Your task to perform on an android device: find which apps use the phone's location Image 0: 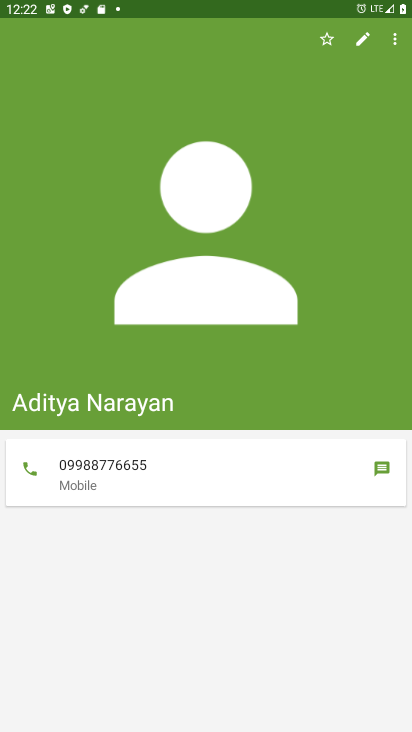
Step 0: press home button
Your task to perform on an android device: find which apps use the phone's location Image 1: 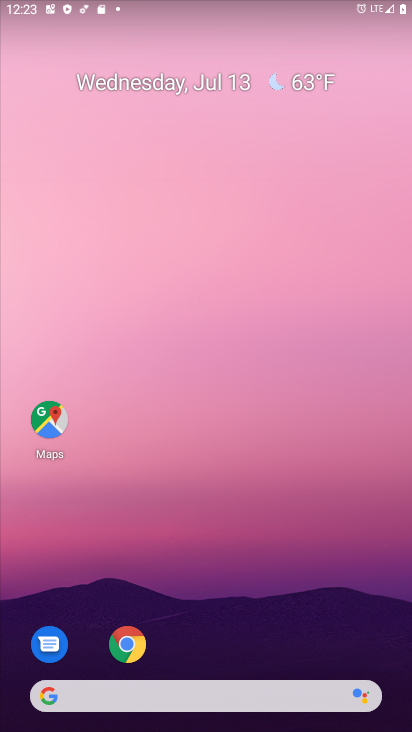
Step 1: drag from (196, 699) to (177, 136)
Your task to perform on an android device: find which apps use the phone's location Image 2: 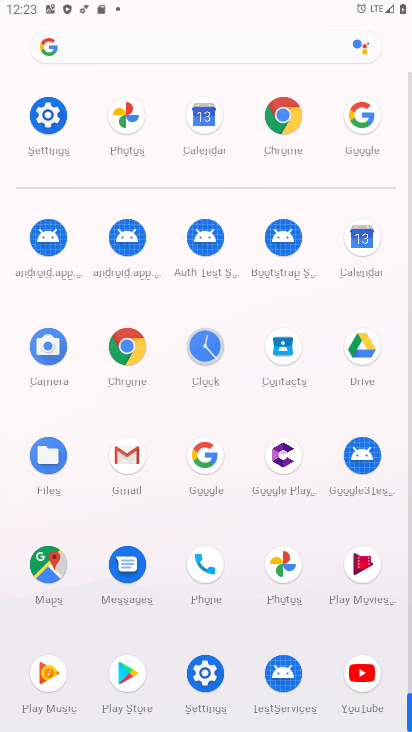
Step 2: click (46, 116)
Your task to perform on an android device: find which apps use the phone's location Image 3: 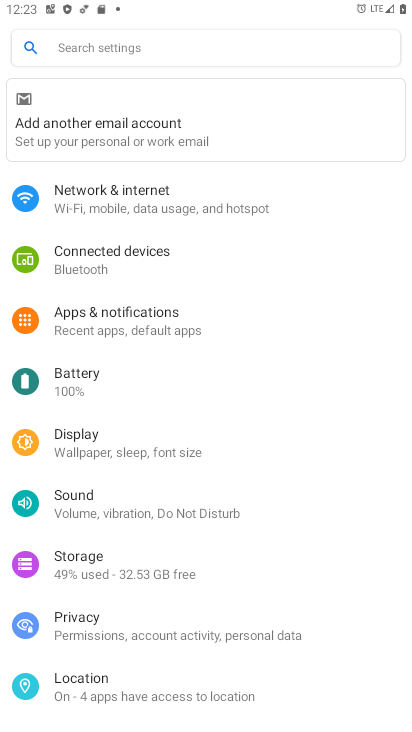
Step 3: click (87, 684)
Your task to perform on an android device: find which apps use the phone's location Image 4: 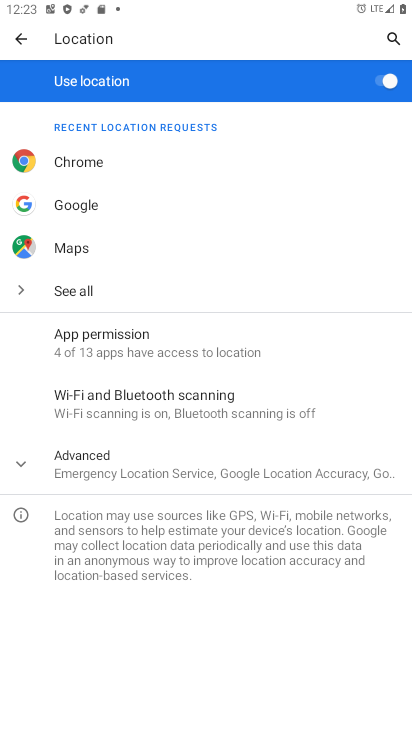
Step 4: click (209, 353)
Your task to perform on an android device: find which apps use the phone's location Image 5: 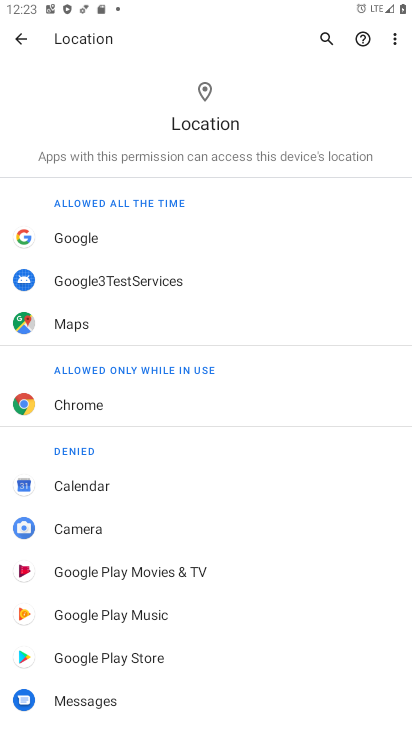
Step 5: click (65, 319)
Your task to perform on an android device: find which apps use the phone's location Image 6: 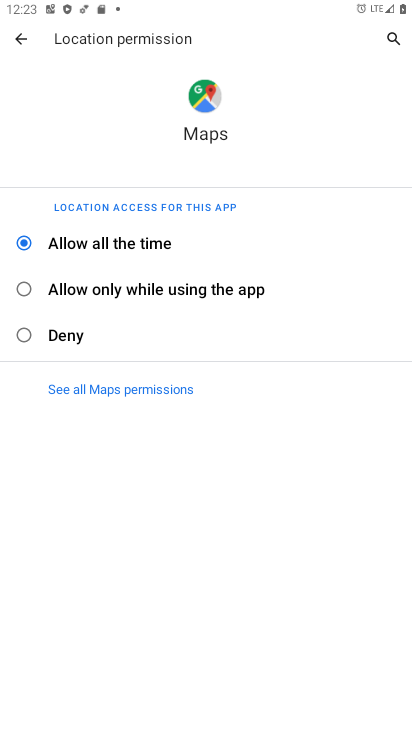
Step 6: task complete